Your task to perform on an android device: turn off sleep mode Image 0: 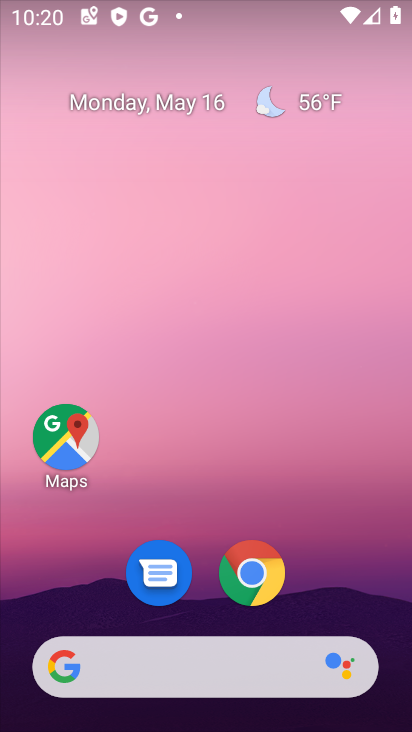
Step 0: drag from (319, 14) to (207, 445)
Your task to perform on an android device: turn off sleep mode Image 1: 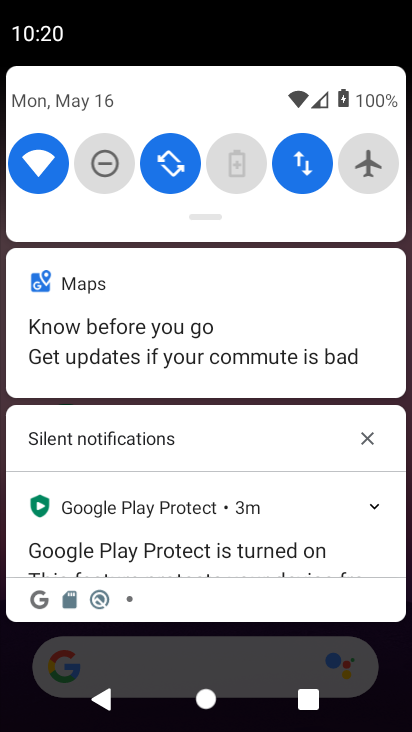
Step 1: drag from (200, 209) to (266, 435)
Your task to perform on an android device: turn off sleep mode Image 2: 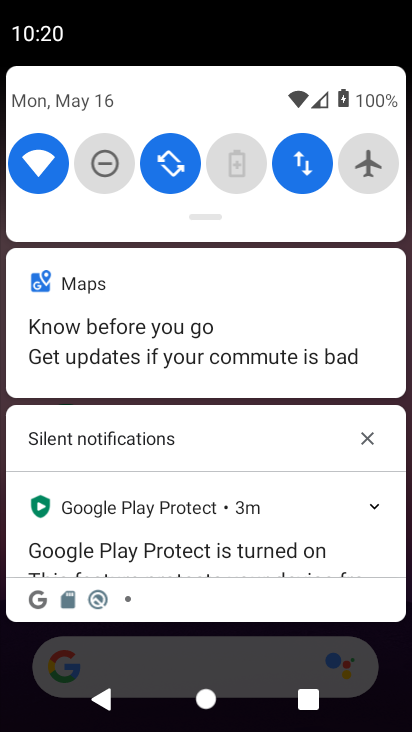
Step 2: drag from (256, 215) to (195, 640)
Your task to perform on an android device: turn off sleep mode Image 3: 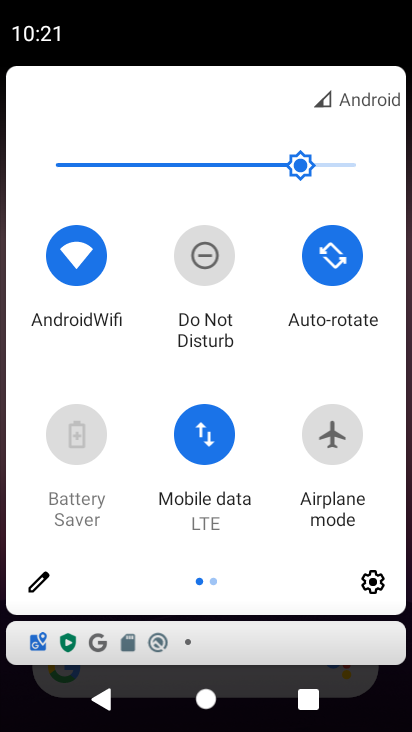
Step 3: click (35, 586)
Your task to perform on an android device: turn off sleep mode Image 4: 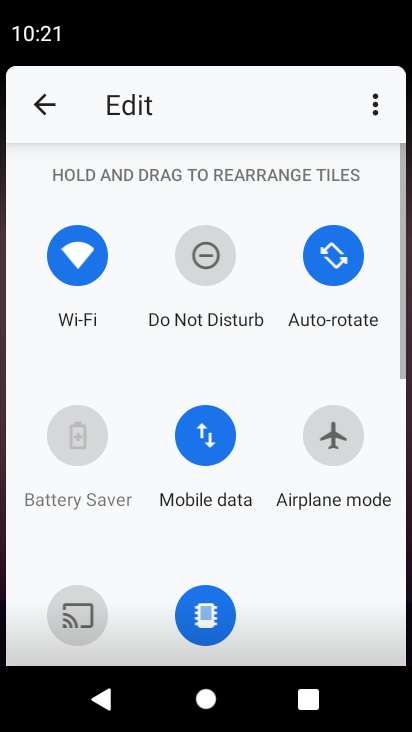
Step 4: task complete